Your task to perform on an android device: Go to ESPN.com Image 0: 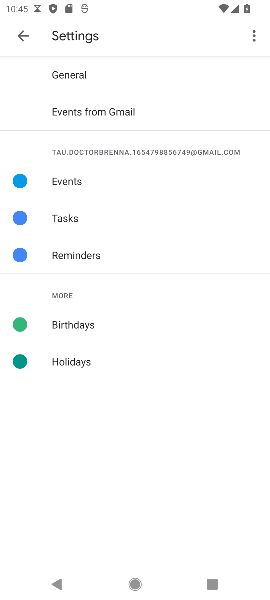
Step 0: press home button
Your task to perform on an android device: Go to ESPN.com Image 1: 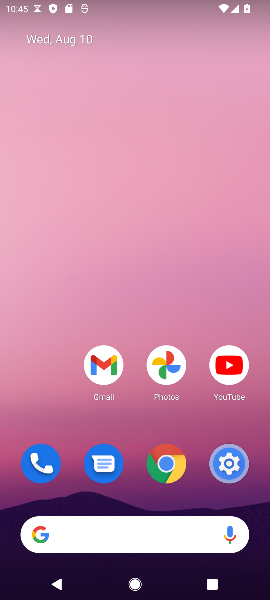
Step 1: click (61, 528)
Your task to perform on an android device: Go to ESPN.com Image 2: 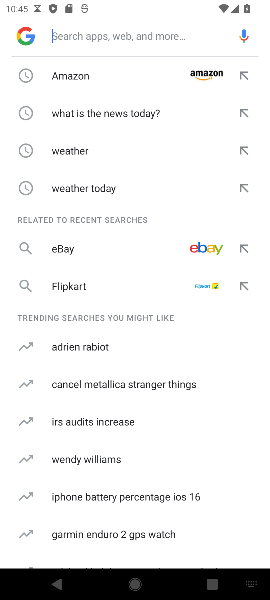
Step 2: type "ESPN.com"
Your task to perform on an android device: Go to ESPN.com Image 3: 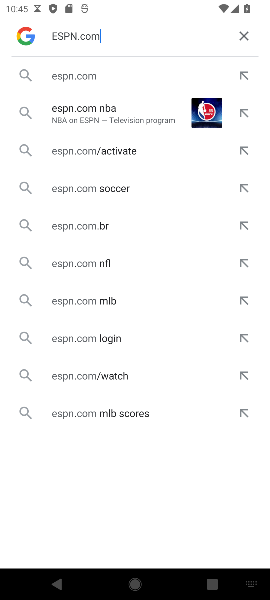
Step 3: type ""
Your task to perform on an android device: Go to ESPN.com Image 4: 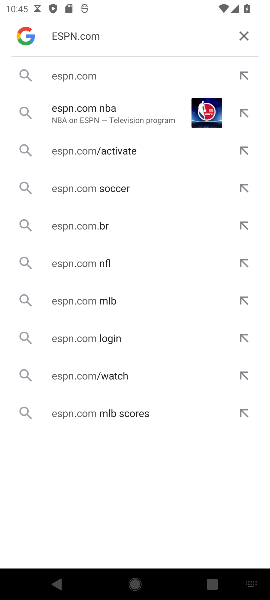
Step 4: task complete